Your task to perform on an android device: open app "Adobe Acrobat Reader" (install if not already installed), go to login, and select forgot password Image 0: 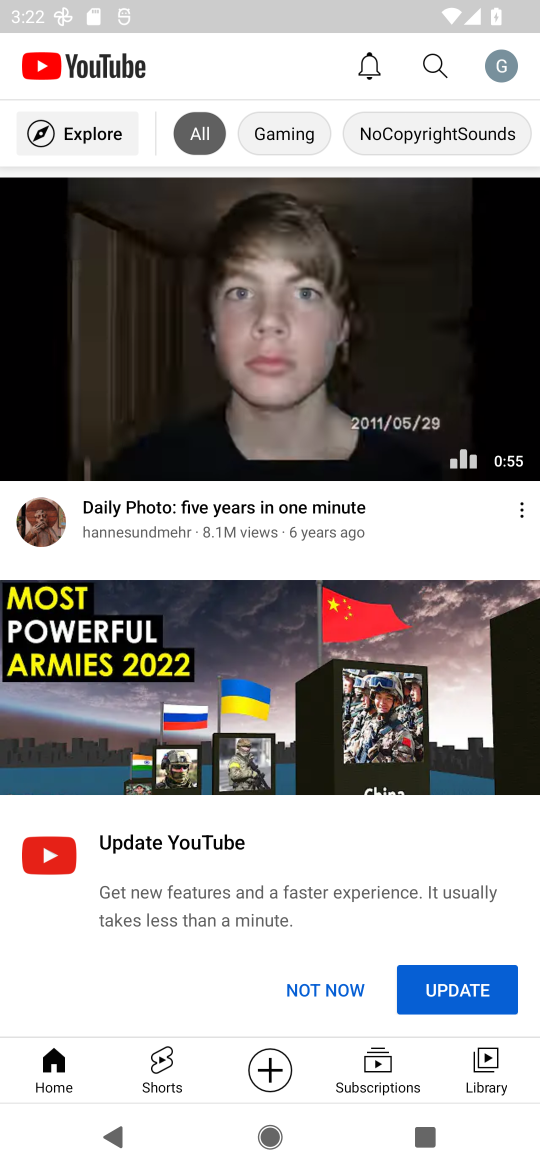
Step 0: press home button
Your task to perform on an android device: open app "Adobe Acrobat Reader" (install if not already installed), go to login, and select forgot password Image 1: 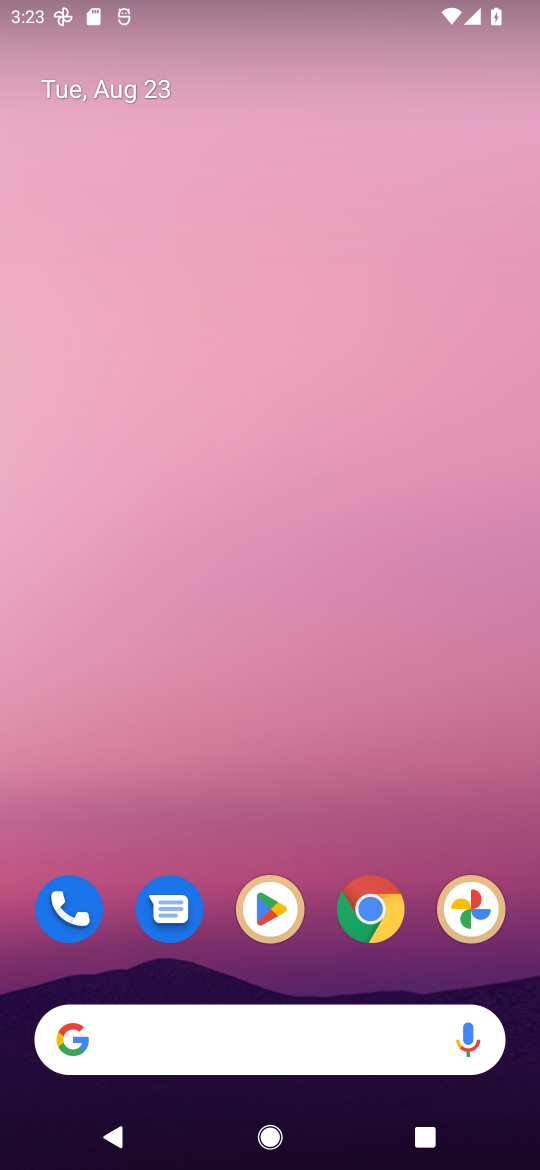
Step 1: click (264, 900)
Your task to perform on an android device: open app "Adobe Acrobat Reader" (install if not already installed), go to login, and select forgot password Image 2: 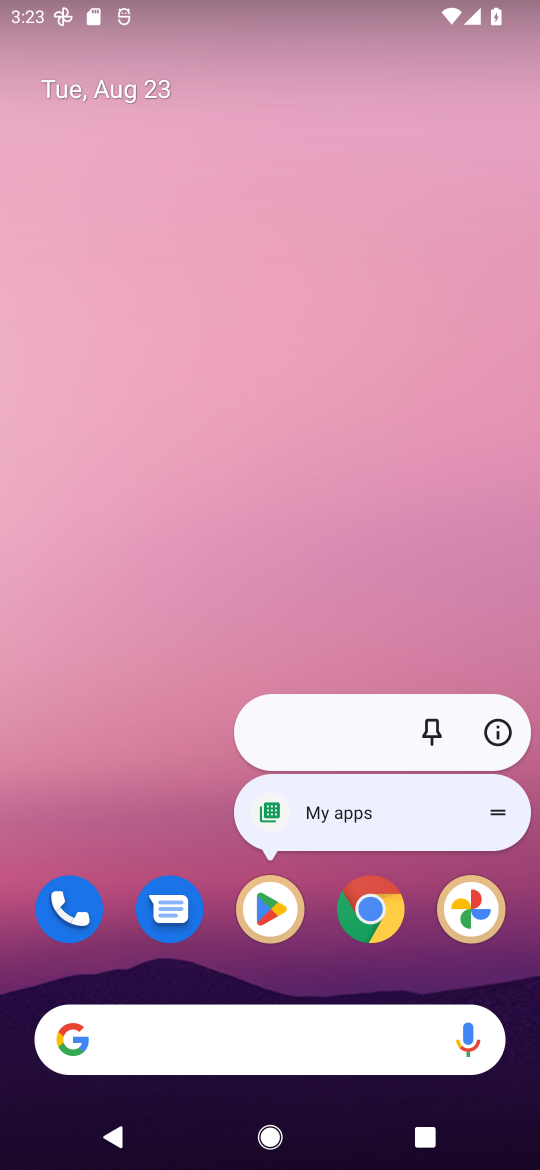
Step 2: click (125, 636)
Your task to perform on an android device: open app "Adobe Acrobat Reader" (install if not already installed), go to login, and select forgot password Image 3: 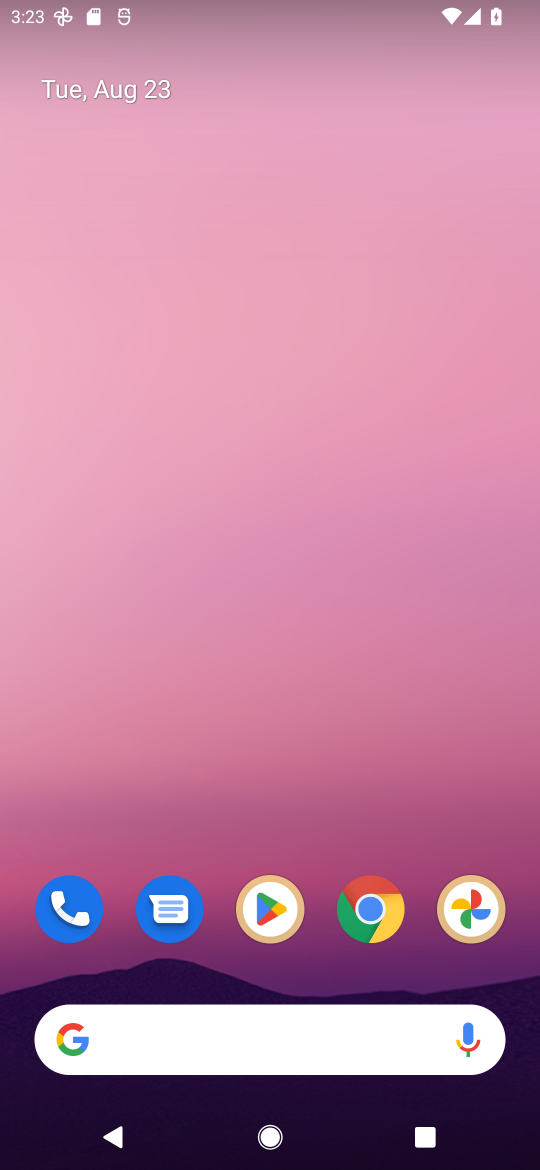
Step 3: click (263, 898)
Your task to perform on an android device: open app "Adobe Acrobat Reader" (install if not already installed), go to login, and select forgot password Image 4: 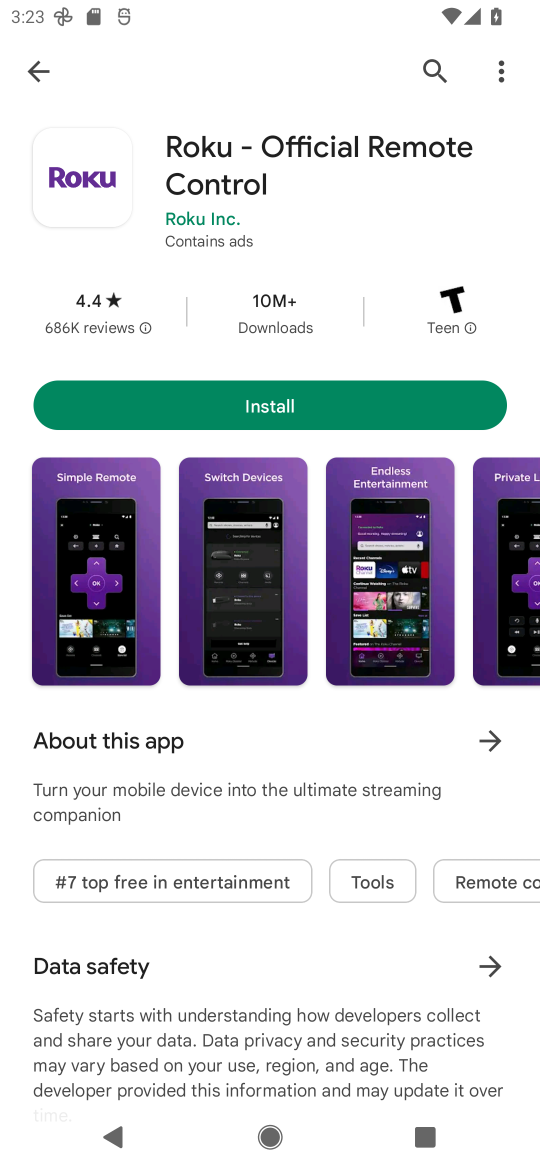
Step 4: click (431, 65)
Your task to perform on an android device: open app "Adobe Acrobat Reader" (install if not already installed), go to login, and select forgot password Image 5: 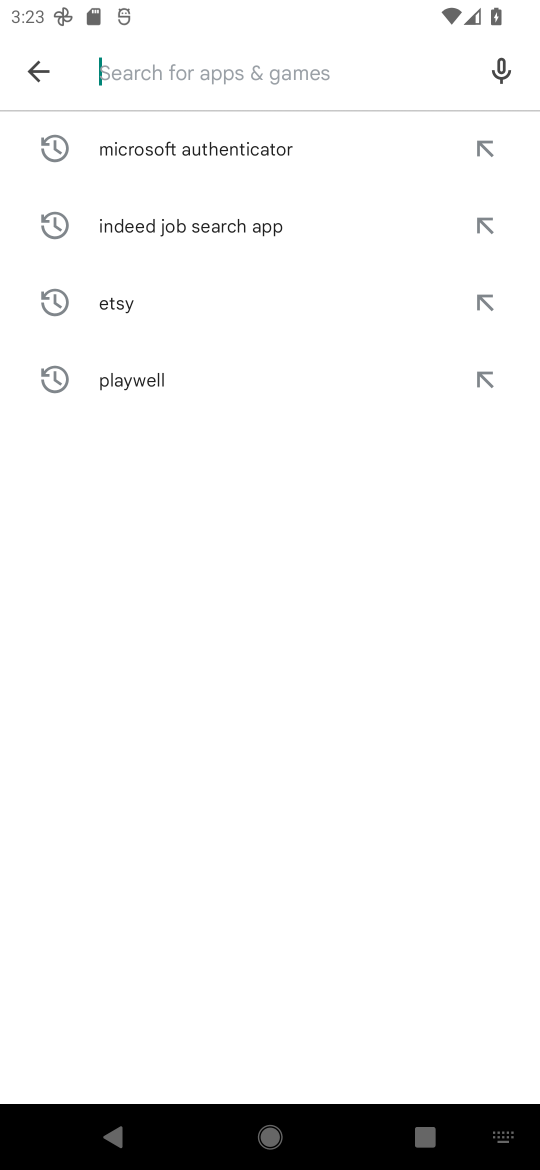
Step 5: type "Adobe Acrobat Reader"
Your task to perform on an android device: open app "Adobe Acrobat Reader" (install if not already installed), go to login, and select forgot password Image 6: 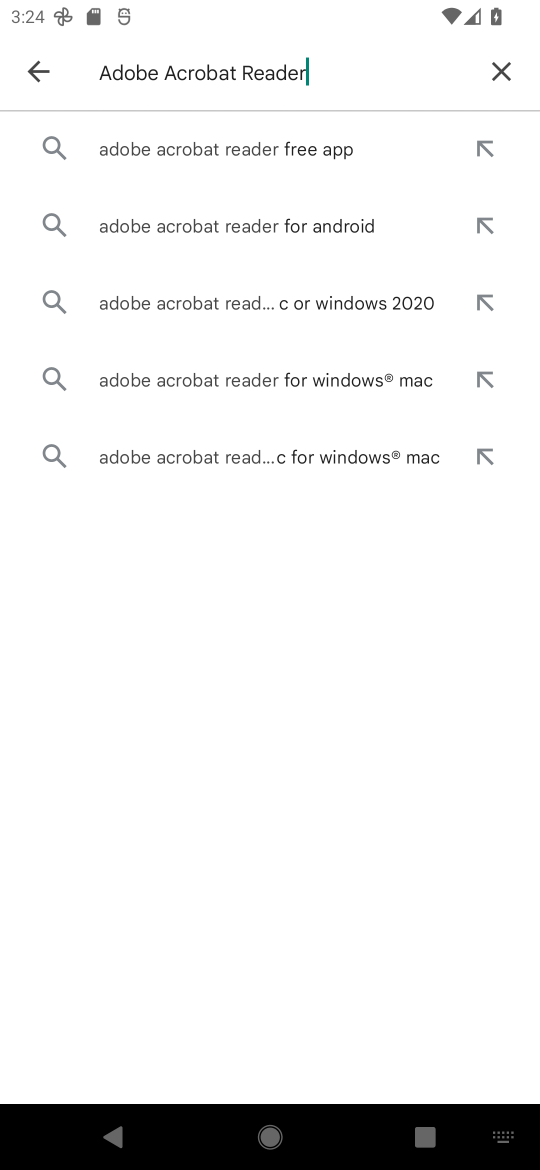
Step 6: click (300, 234)
Your task to perform on an android device: open app "Adobe Acrobat Reader" (install if not already installed), go to login, and select forgot password Image 7: 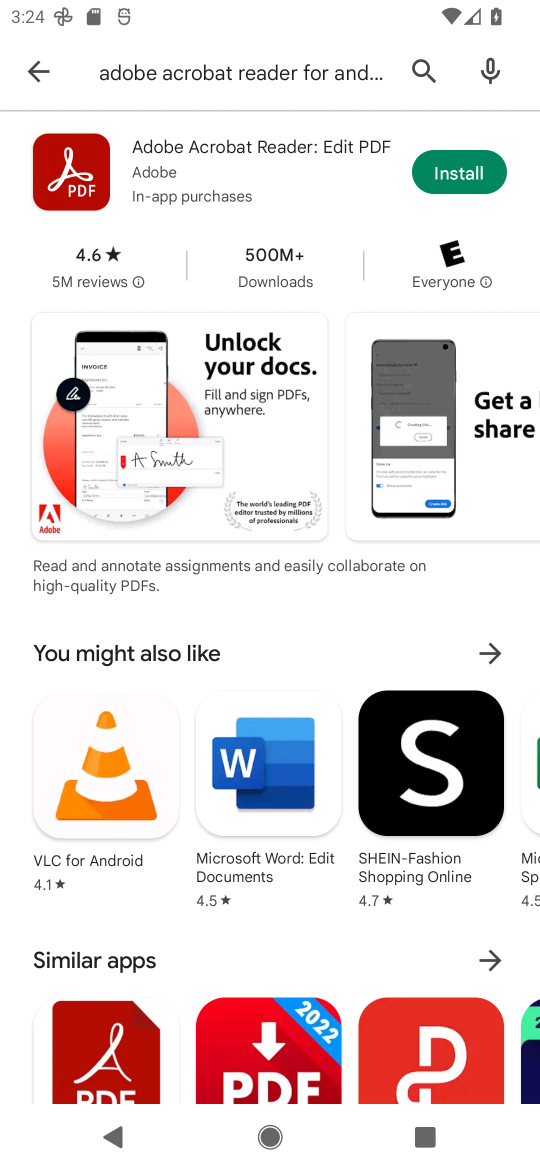
Step 7: click (456, 168)
Your task to perform on an android device: open app "Adobe Acrobat Reader" (install if not already installed), go to login, and select forgot password Image 8: 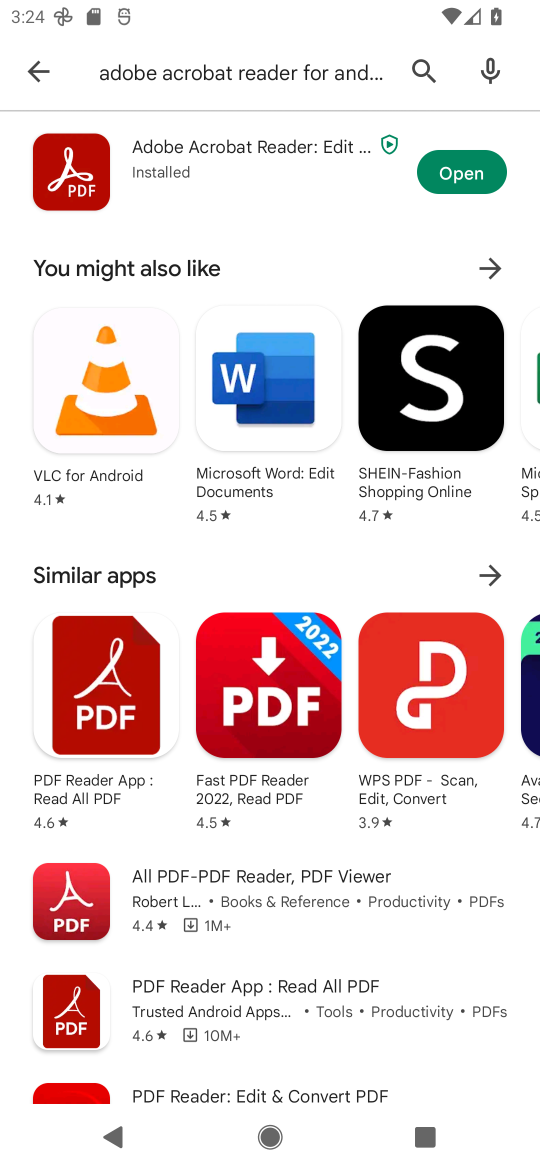
Step 8: click (460, 168)
Your task to perform on an android device: open app "Adobe Acrobat Reader" (install if not already installed), go to login, and select forgot password Image 9: 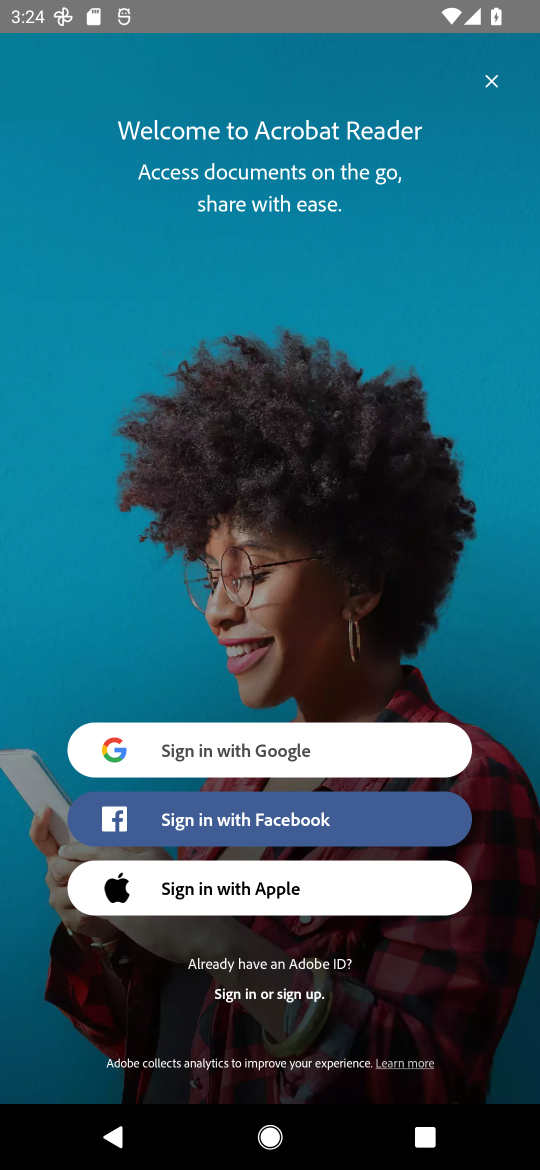
Step 9: click (247, 747)
Your task to perform on an android device: open app "Adobe Acrobat Reader" (install if not already installed), go to login, and select forgot password Image 10: 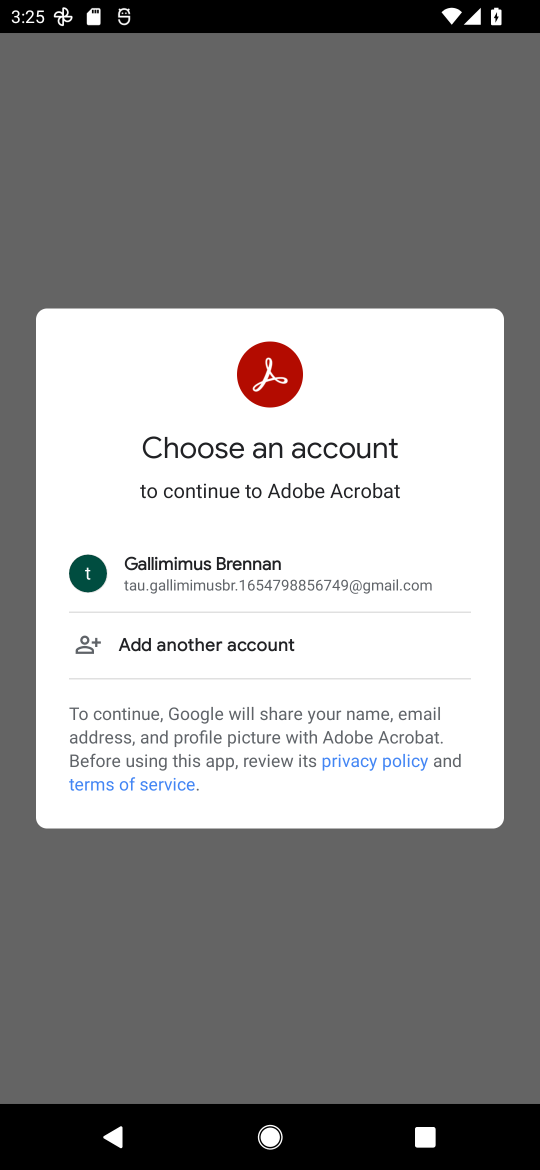
Step 10: click (147, 158)
Your task to perform on an android device: open app "Adobe Acrobat Reader" (install if not already installed), go to login, and select forgot password Image 11: 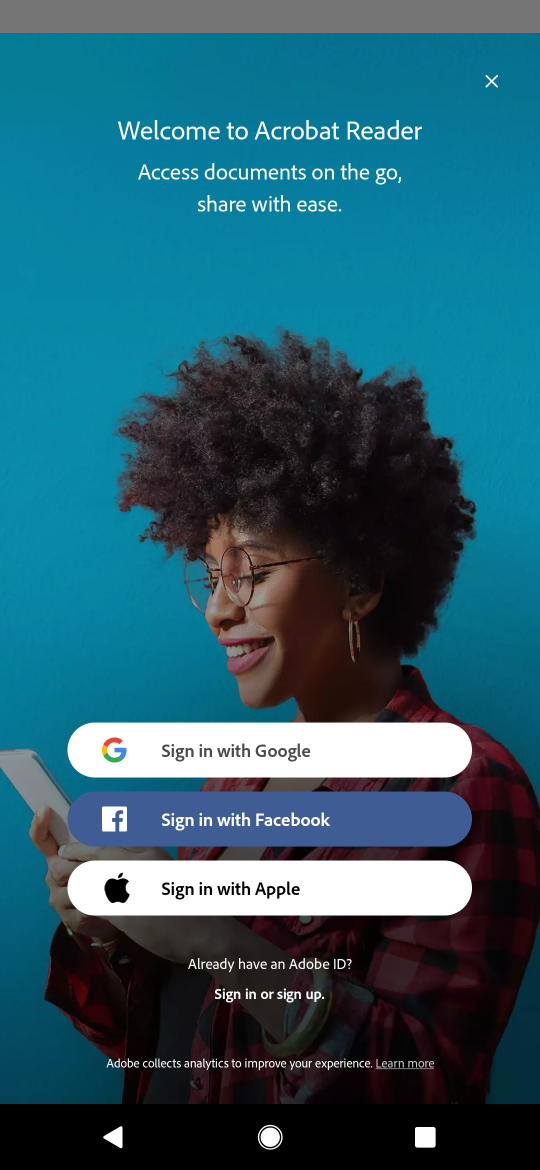
Step 11: click (239, 1000)
Your task to perform on an android device: open app "Adobe Acrobat Reader" (install if not already installed), go to login, and select forgot password Image 12: 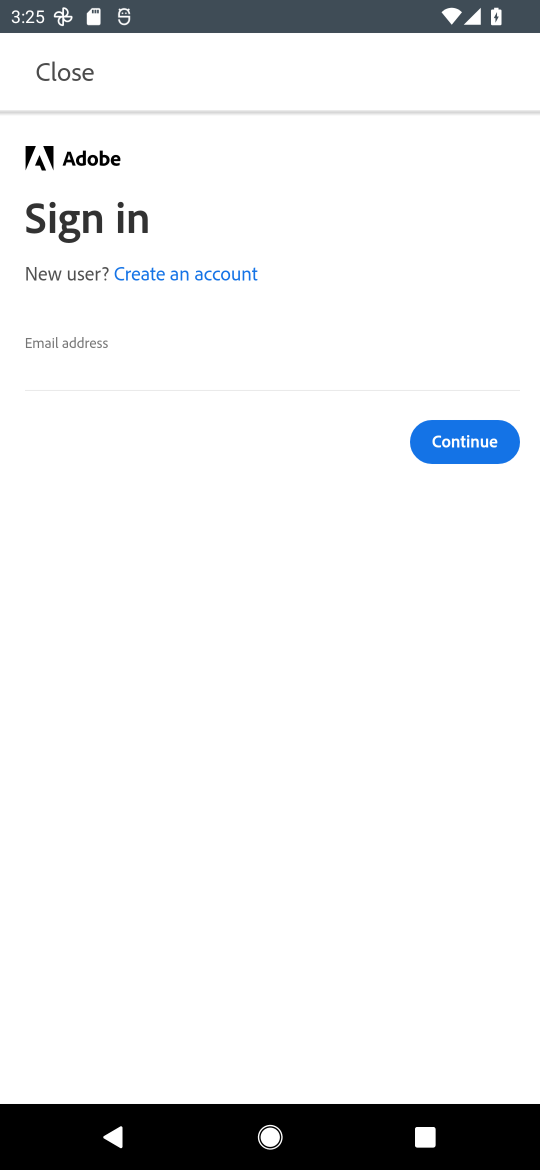
Step 12: task complete